Your task to perform on an android device: toggle data saver in the chrome app Image 0: 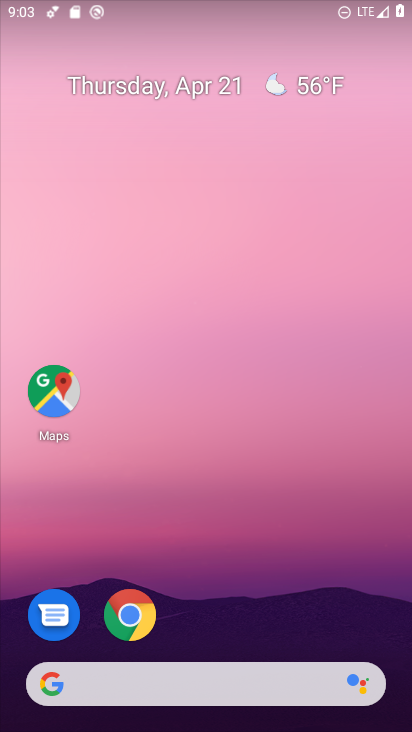
Step 0: drag from (294, 517) to (326, 61)
Your task to perform on an android device: toggle data saver in the chrome app Image 1: 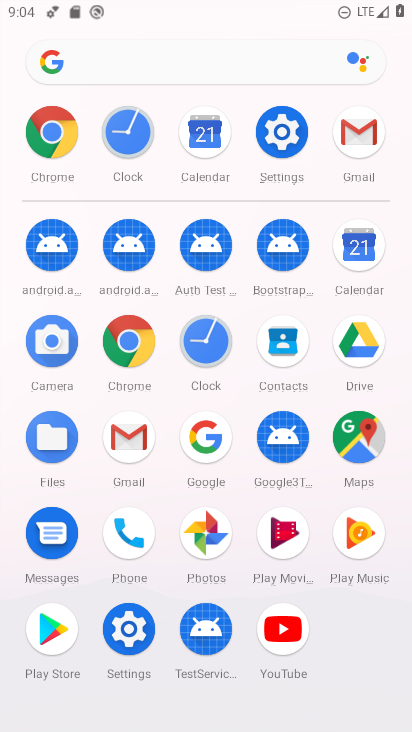
Step 1: click (142, 352)
Your task to perform on an android device: toggle data saver in the chrome app Image 2: 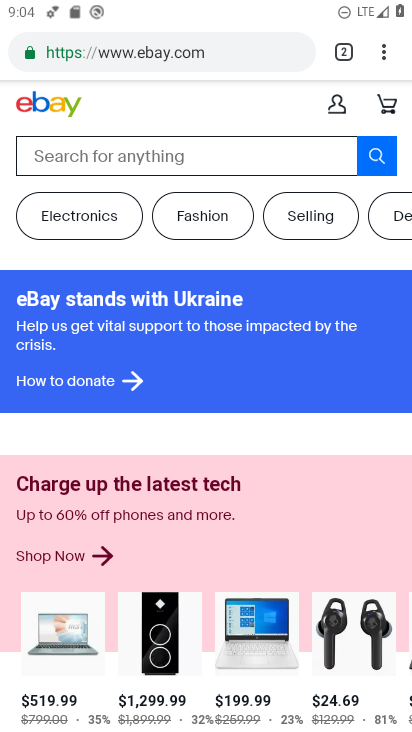
Step 2: drag from (384, 49) to (200, 582)
Your task to perform on an android device: toggle data saver in the chrome app Image 3: 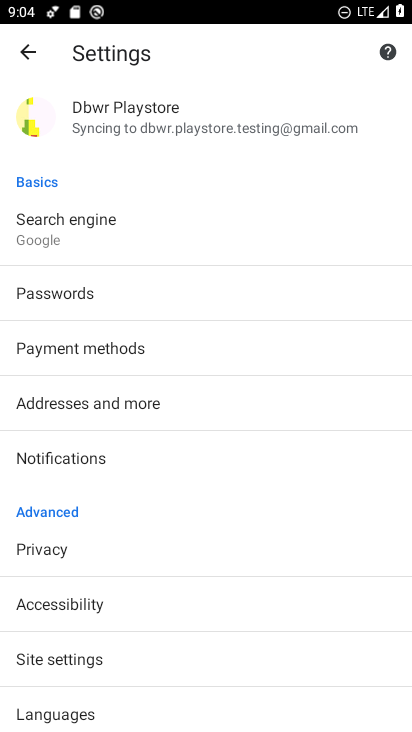
Step 3: drag from (147, 545) to (183, 253)
Your task to perform on an android device: toggle data saver in the chrome app Image 4: 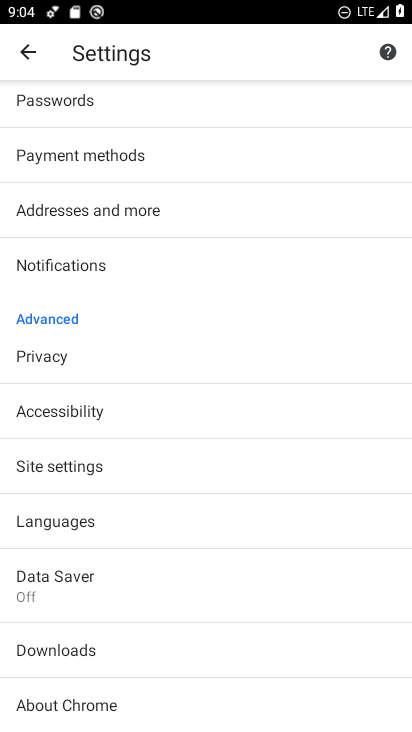
Step 4: drag from (107, 632) to (157, 312)
Your task to perform on an android device: toggle data saver in the chrome app Image 5: 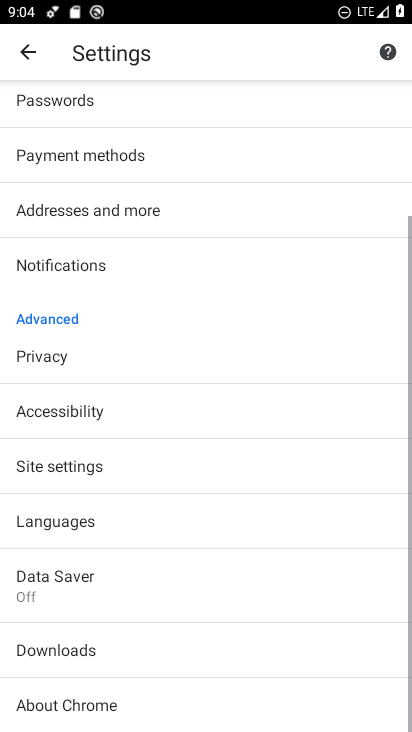
Step 5: click (51, 574)
Your task to perform on an android device: toggle data saver in the chrome app Image 6: 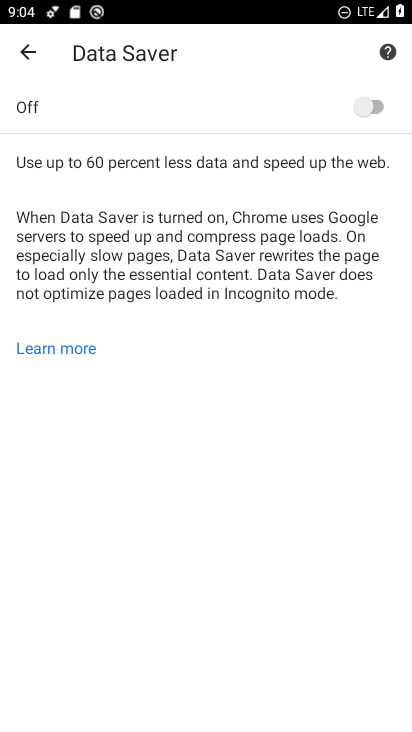
Step 6: click (376, 114)
Your task to perform on an android device: toggle data saver in the chrome app Image 7: 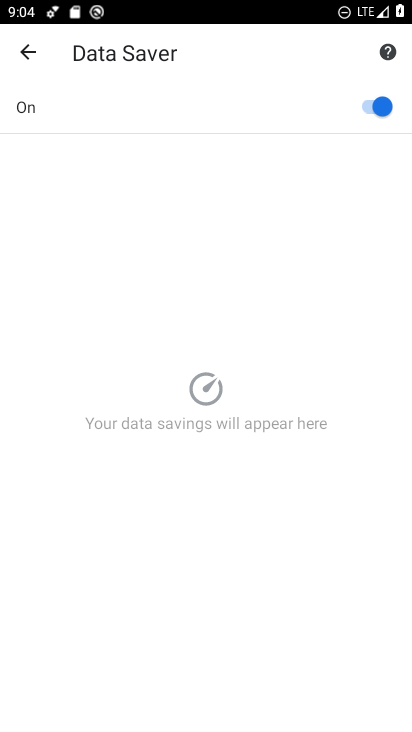
Step 7: task complete